Your task to perform on an android device: toggle wifi Image 0: 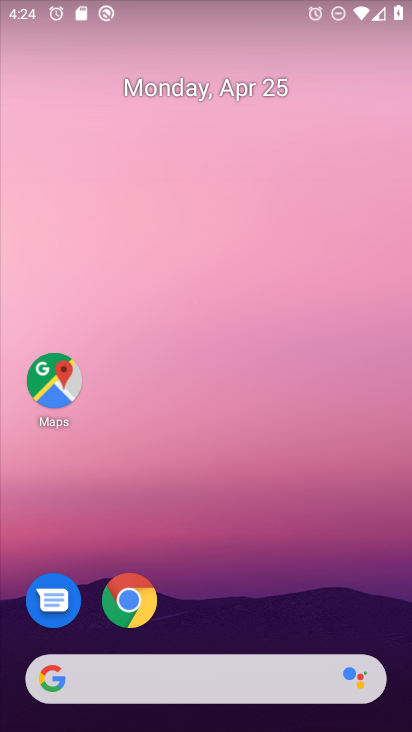
Step 0: click (217, 8)
Your task to perform on an android device: toggle wifi Image 1: 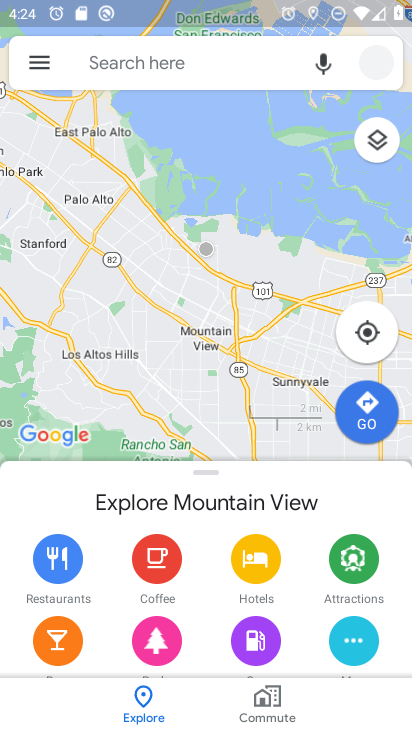
Step 1: press back button
Your task to perform on an android device: toggle wifi Image 2: 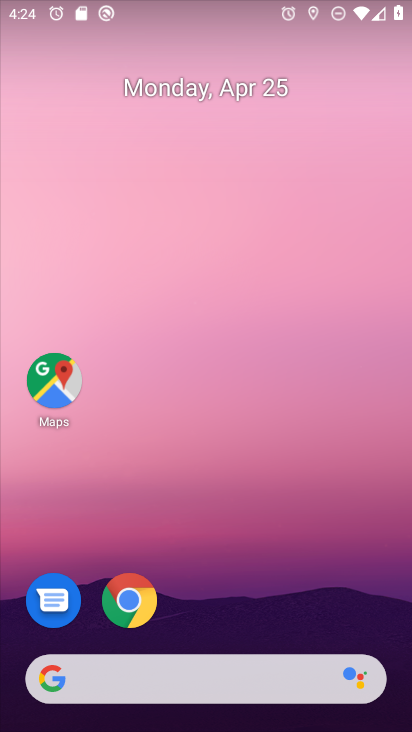
Step 2: drag from (263, 572) to (258, 42)
Your task to perform on an android device: toggle wifi Image 3: 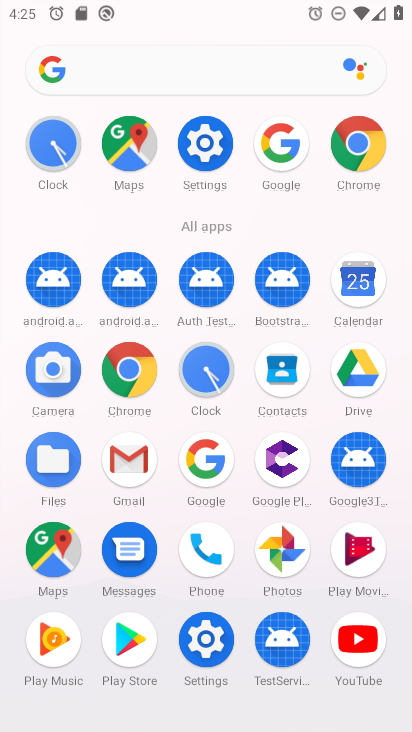
Step 3: drag from (2, 567) to (12, 239)
Your task to perform on an android device: toggle wifi Image 4: 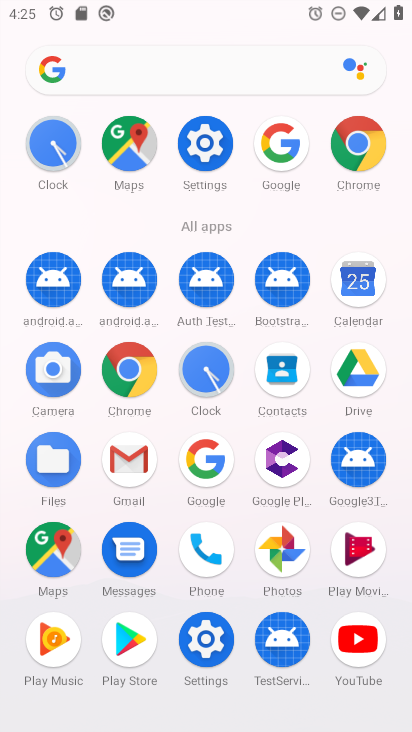
Step 4: click (202, 639)
Your task to perform on an android device: toggle wifi Image 5: 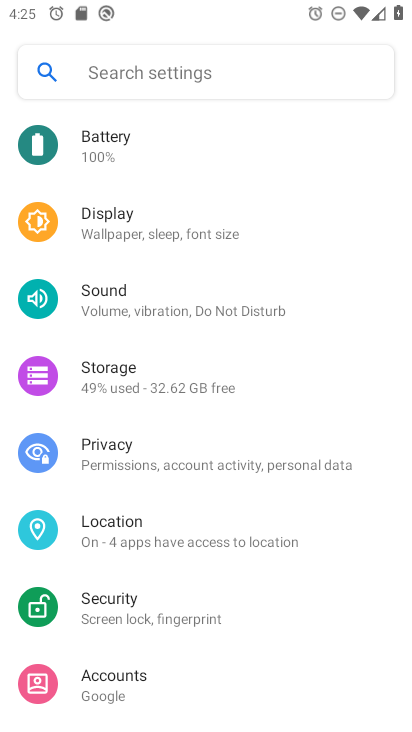
Step 5: drag from (252, 294) to (231, 626)
Your task to perform on an android device: toggle wifi Image 6: 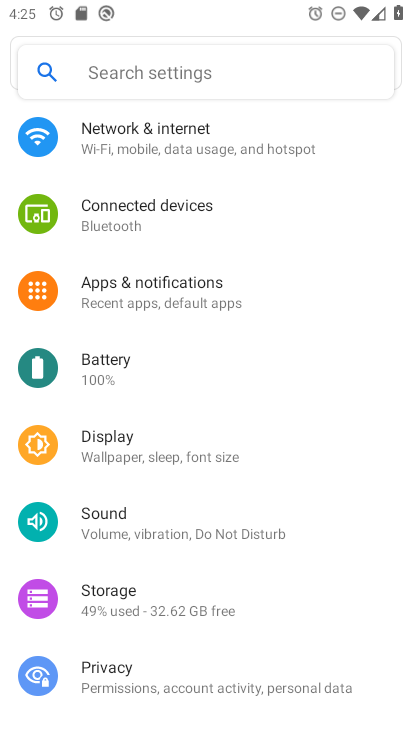
Step 6: drag from (236, 292) to (212, 578)
Your task to perform on an android device: toggle wifi Image 7: 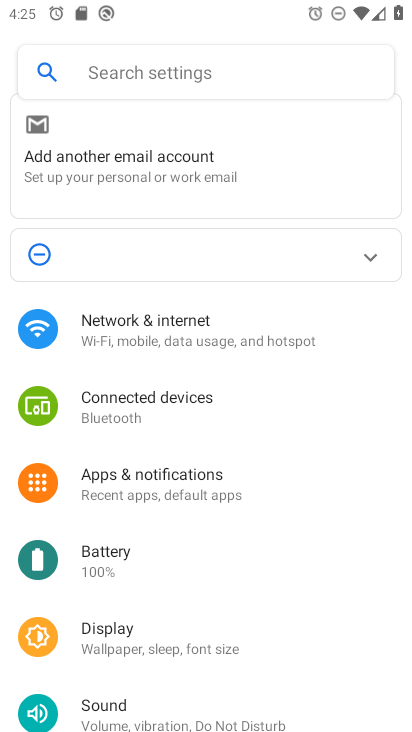
Step 7: click (225, 324)
Your task to perform on an android device: toggle wifi Image 8: 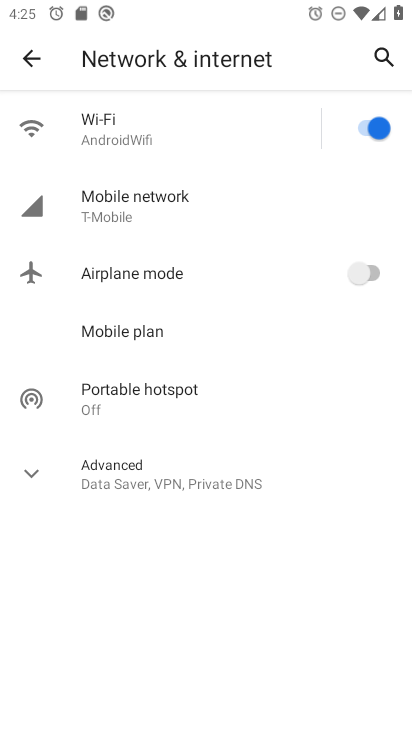
Step 8: task complete